Your task to perform on an android device: turn vacation reply on in the gmail app Image 0: 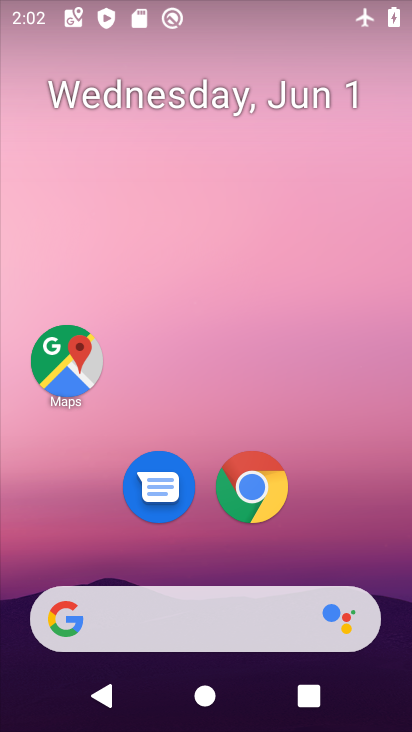
Step 0: drag from (326, 547) to (348, 207)
Your task to perform on an android device: turn vacation reply on in the gmail app Image 1: 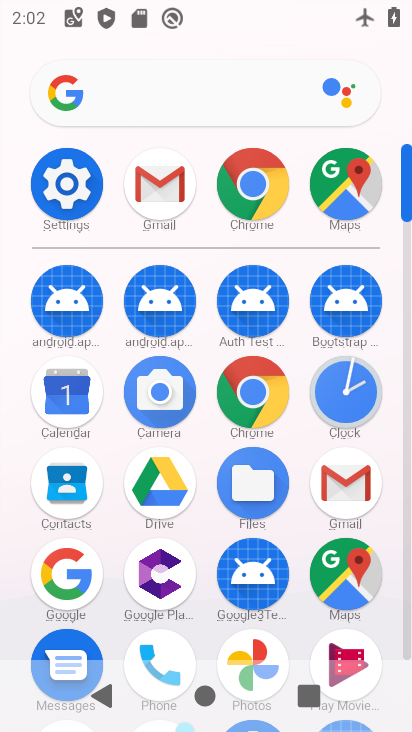
Step 1: click (362, 489)
Your task to perform on an android device: turn vacation reply on in the gmail app Image 2: 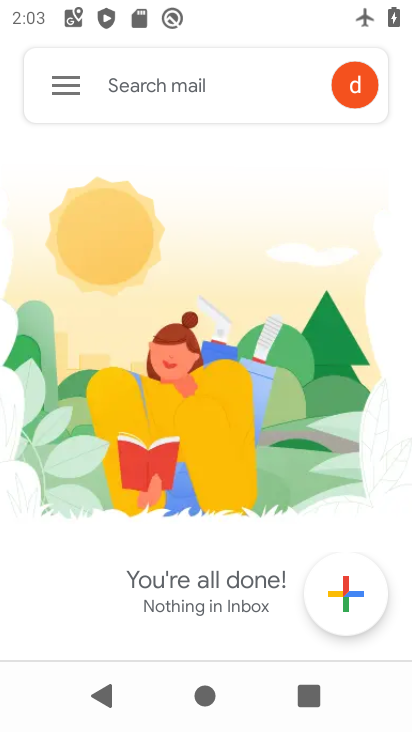
Step 2: click (71, 89)
Your task to perform on an android device: turn vacation reply on in the gmail app Image 3: 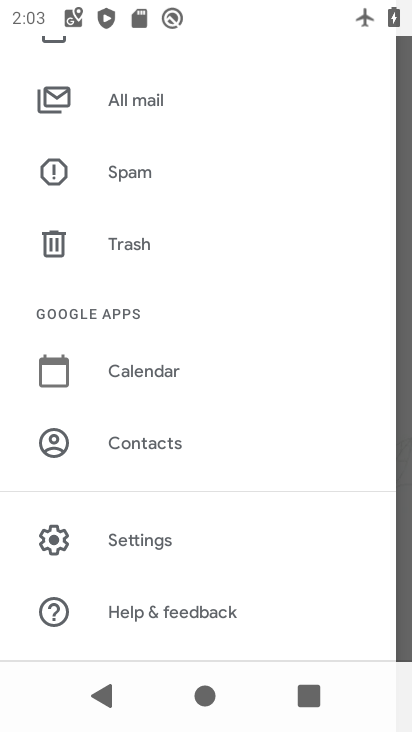
Step 3: drag from (270, 228) to (270, 325)
Your task to perform on an android device: turn vacation reply on in the gmail app Image 4: 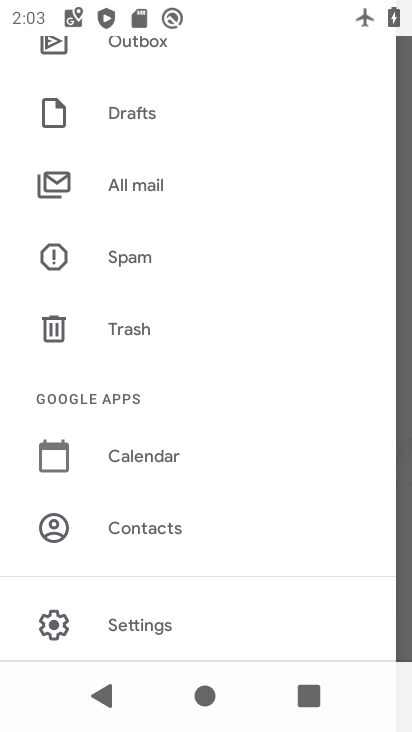
Step 4: drag from (282, 231) to (282, 329)
Your task to perform on an android device: turn vacation reply on in the gmail app Image 5: 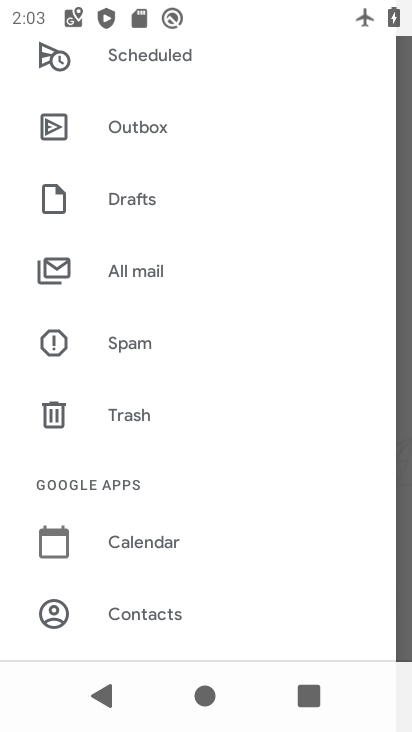
Step 5: drag from (282, 216) to (282, 315)
Your task to perform on an android device: turn vacation reply on in the gmail app Image 6: 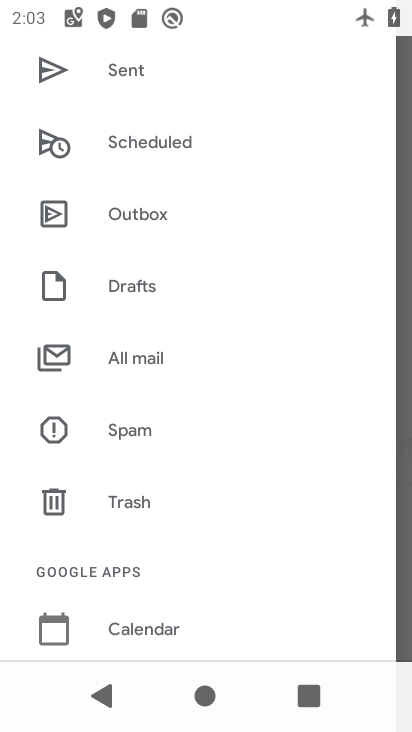
Step 6: drag from (287, 223) to (289, 284)
Your task to perform on an android device: turn vacation reply on in the gmail app Image 7: 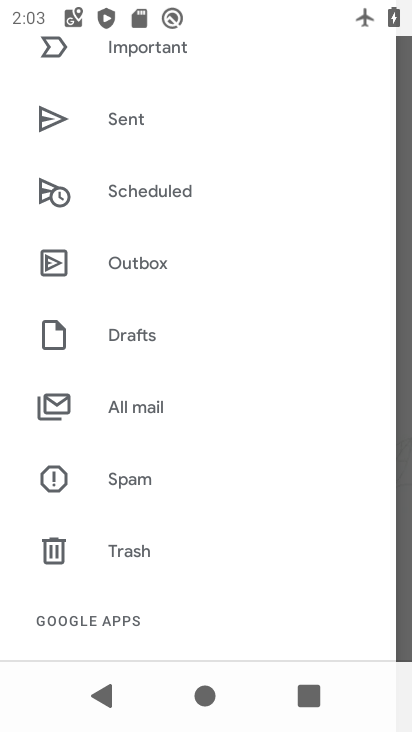
Step 7: drag from (292, 229) to (288, 386)
Your task to perform on an android device: turn vacation reply on in the gmail app Image 8: 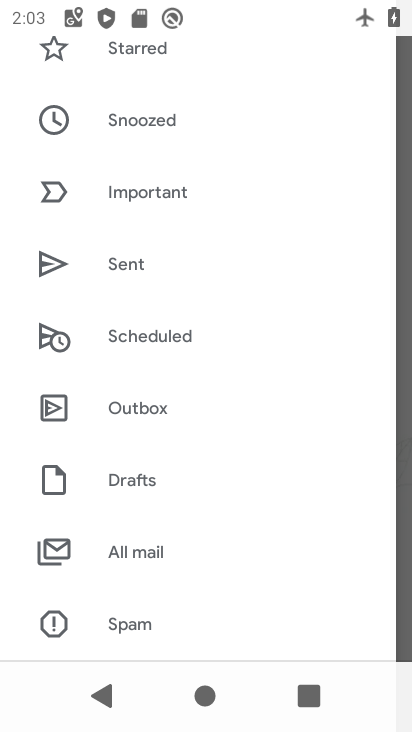
Step 8: drag from (276, 468) to (285, 248)
Your task to perform on an android device: turn vacation reply on in the gmail app Image 9: 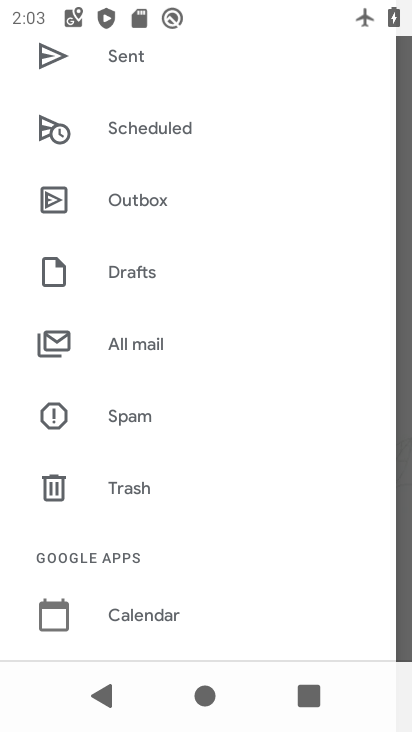
Step 9: drag from (273, 491) to (283, 314)
Your task to perform on an android device: turn vacation reply on in the gmail app Image 10: 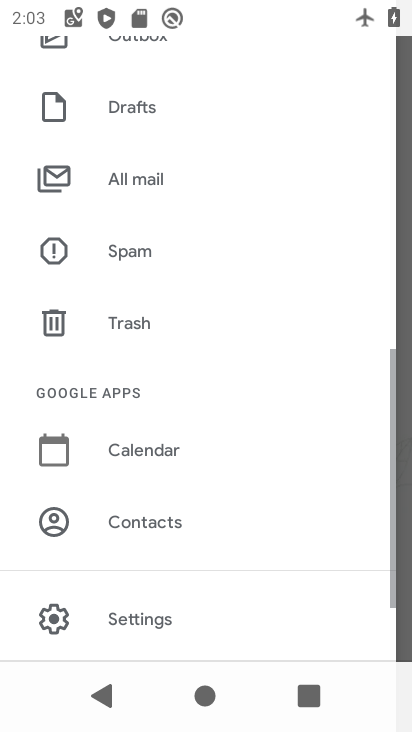
Step 10: drag from (276, 497) to (285, 365)
Your task to perform on an android device: turn vacation reply on in the gmail app Image 11: 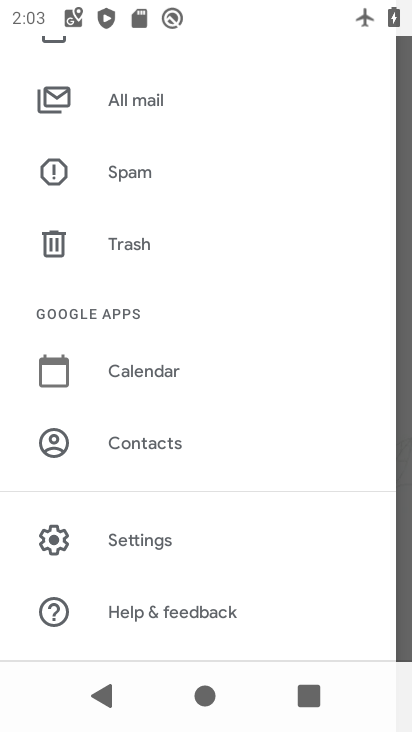
Step 11: click (184, 552)
Your task to perform on an android device: turn vacation reply on in the gmail app Image 12: 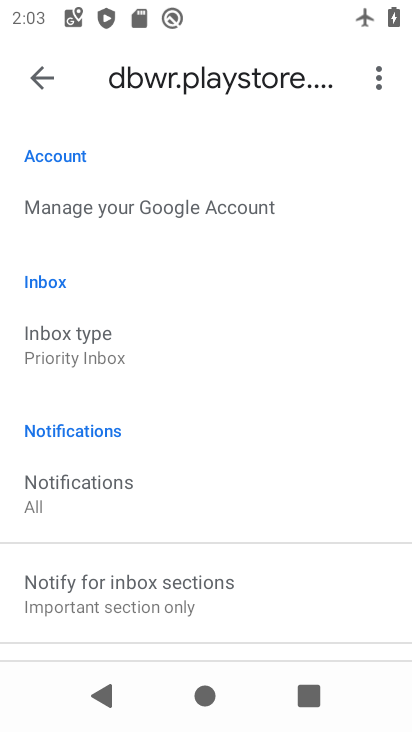
Step 12: drag from (247, 443) to (257, 345)
Your task to perform on an android device: turn vacation reply on in the gmail app Image 13: 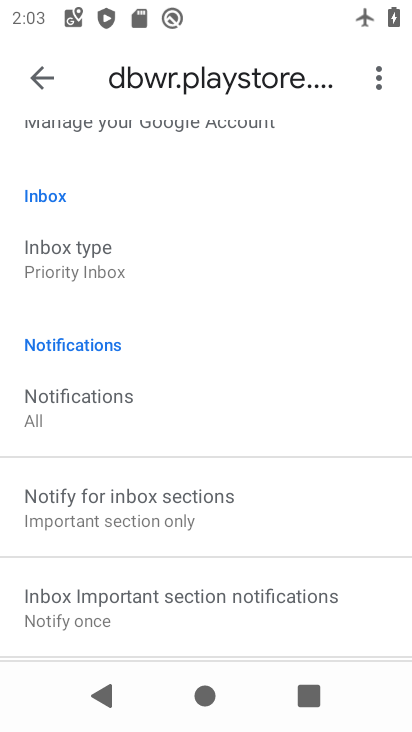
Step 13: drag from (273, 510) to (285, 300)
Your task to perform on an android device: turn vacation reply on in the gmail app Image 14: 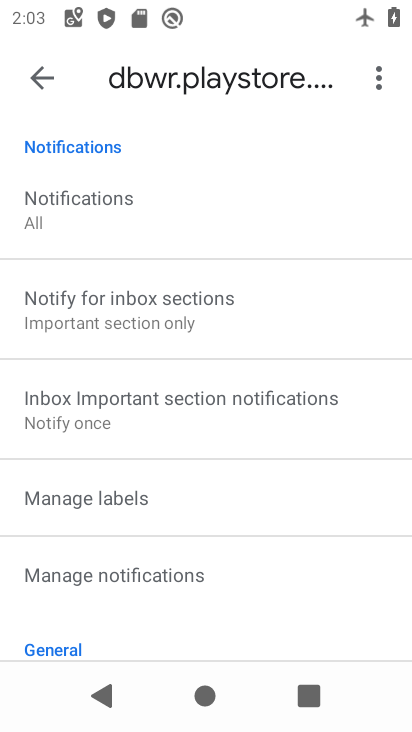
Step 14: drag from (275, 497) to (277, 340)
Your task to perform on an android device: turn vacation reply on in the gmail app Image 15: 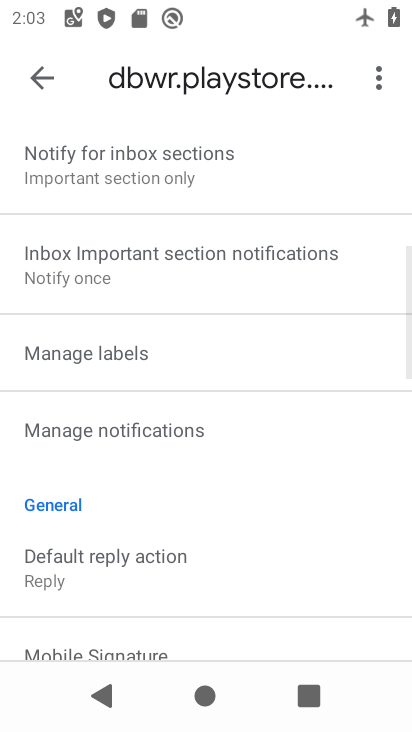
Step 15: drag from (285, 514) to (283, 383)
Your task to perform on an android device: turn vacation reply on in the gmail app Image 16: 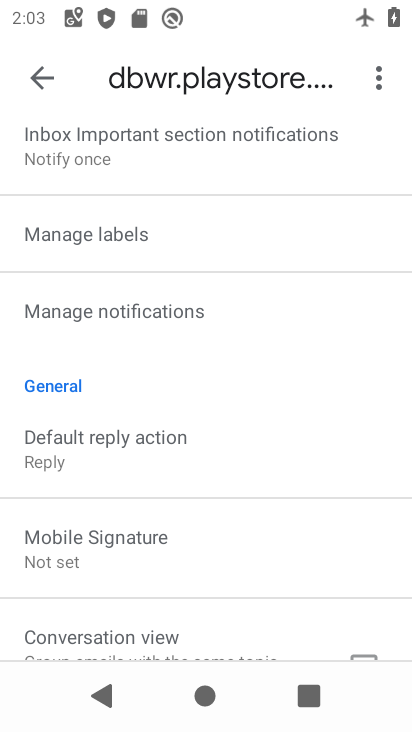
Step 16: click (280, 481)
Your task to perform on an android device: turn vacation reply on in the gmail app Image 17: 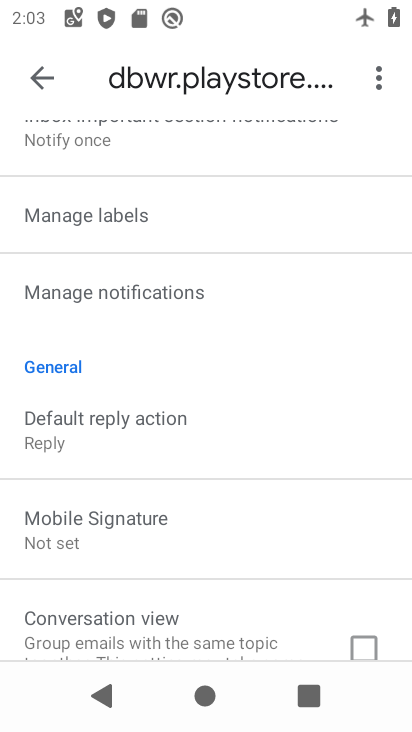
Step 17: drag from (272, 489) to (272, 418)
Your task to perform on an android device: turn vacation reply on in the gmail app Image 18: 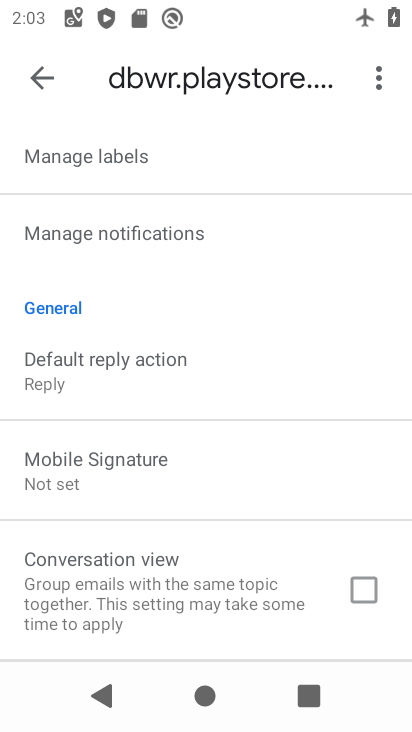
Step 18: drag from (271, 511) to (274, 463)
Your task to perform on an android device: turn vacation reply on in the gmail app Image 19: 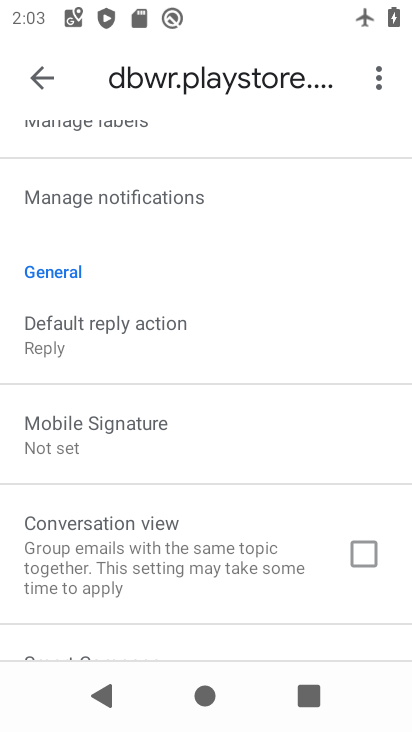
Step 19: drag from (265, 526) to (269, 410)
Your task to perform on an android device: turn vacation reply on in the gmail app Image 20: 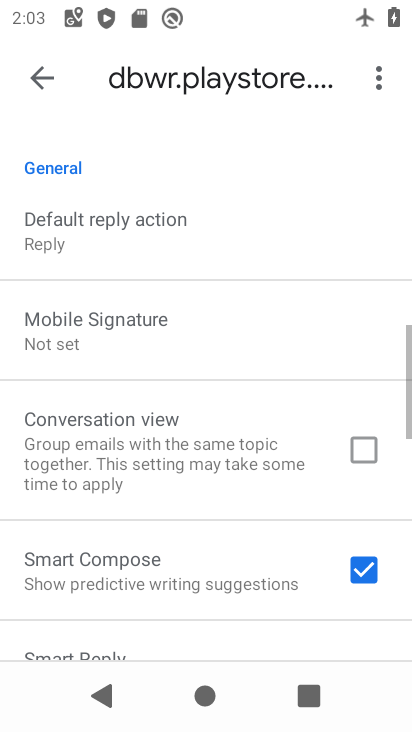
Step 20: drag from (255, 512) to (256, 409)
Your task to perform on an android device: turn vacation reply on in the gmail app Image 21: 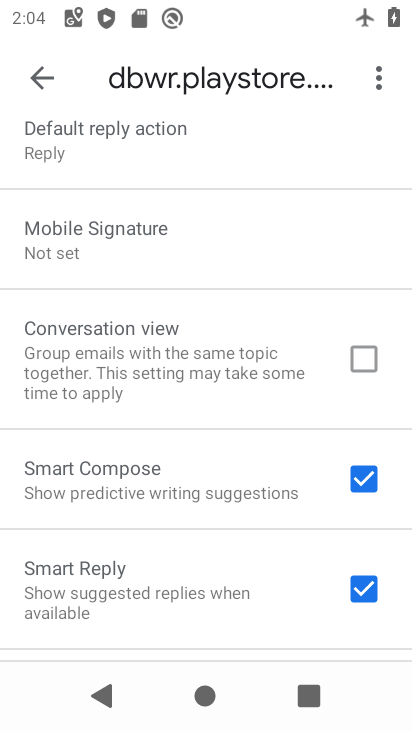
Step 21: drag from (237, 510) to (246, 366)
Your task to perform on an android device: turn vacation reply on in the gmail app Image 22: 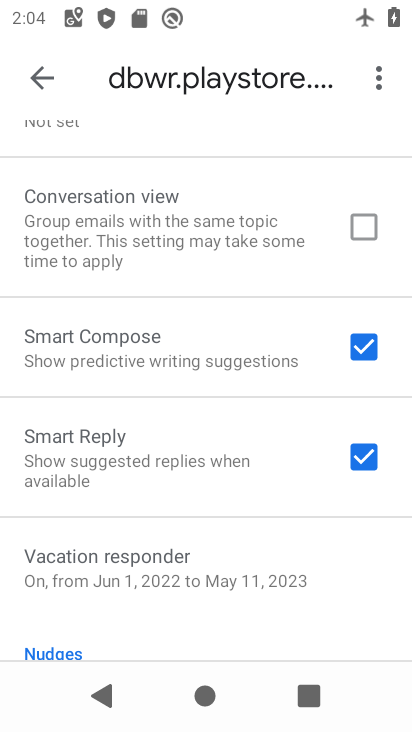
Step 22: drag from (203, 575) to (237, 418)
Your task to perform on an android device: turn vacation reply on in the gmail app Image 23: 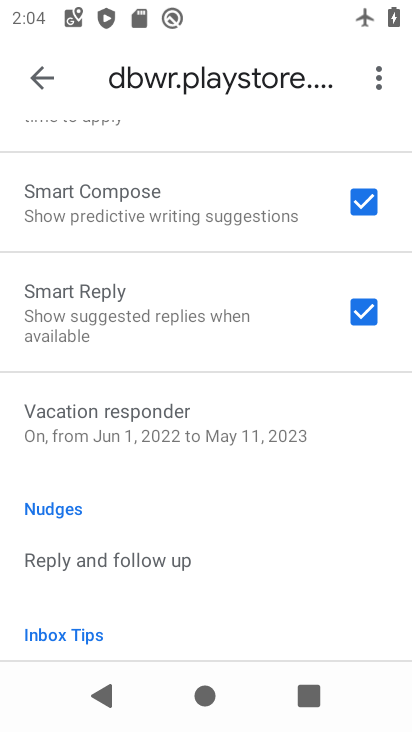
Step 23: click (242, 440)
Your task to perform on an android device: turn vacation reply on in the gmail app Image 24: 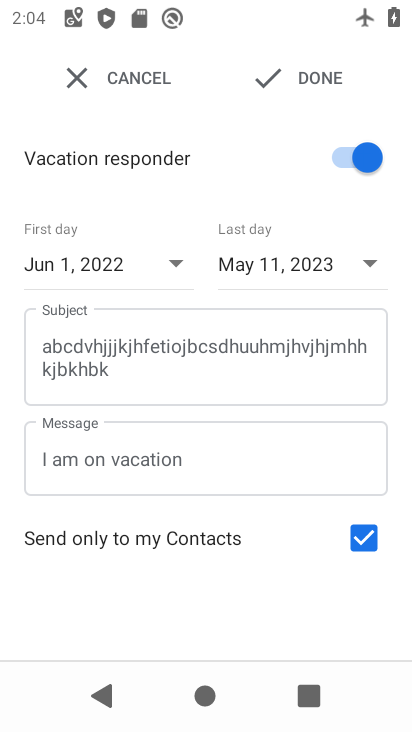
Step 24: task complete